Your task to perform on an android device: clear all cookies in the chrome app Image 0: 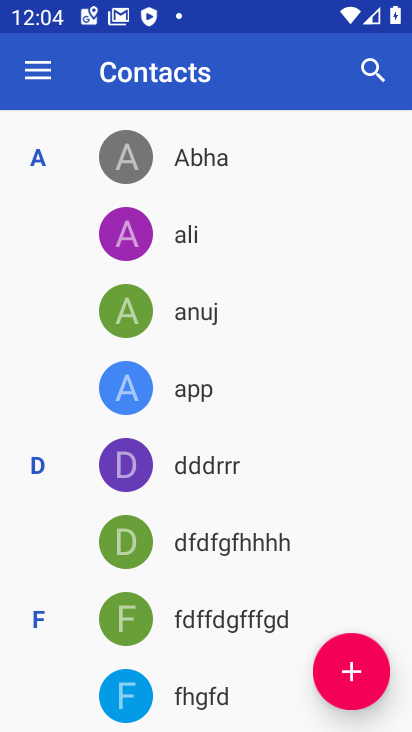
Step 0: drag from (220, 645) to (208, 264)
Your task to perform on an android device: clear all cookies in the chrome app Image 1: 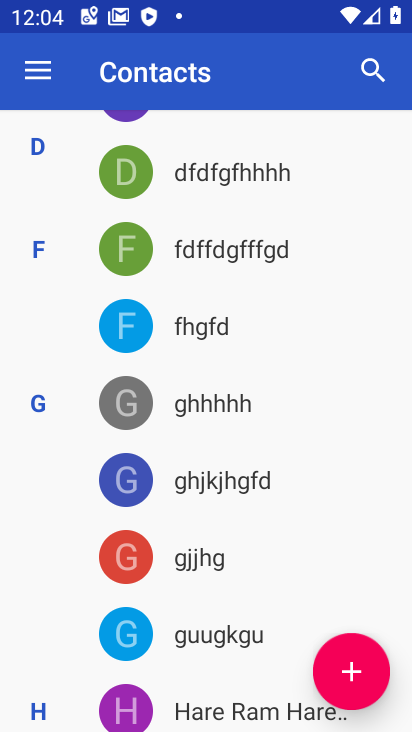
Step 1: press home button
Your task to perform on an android device: clear all cookies in the chrome app Image 2: 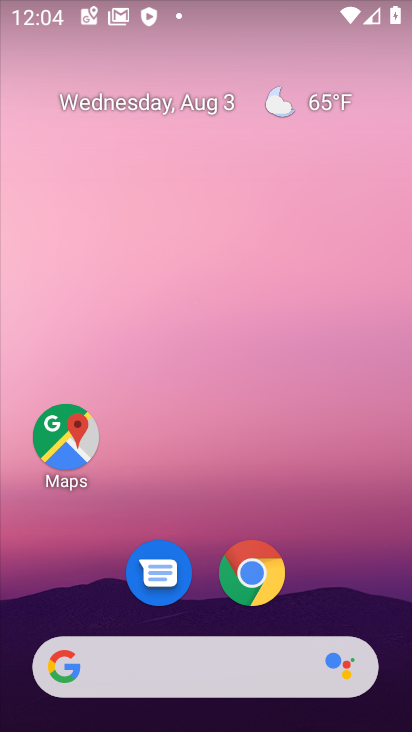
Step 2: drag from (195, 601) to (266, 118)
Your task to perform on an android device: clear all cookies in the chrome app Image 3: 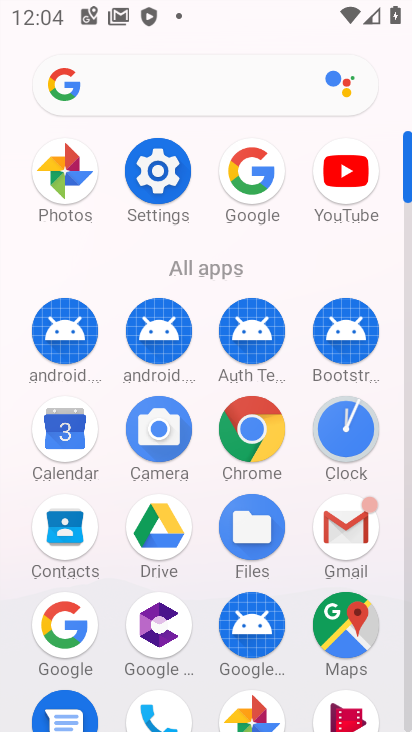
Step 3: click (250, 434)
Your task to perform on an android device: clear all cookies in the chrome app Image 4: 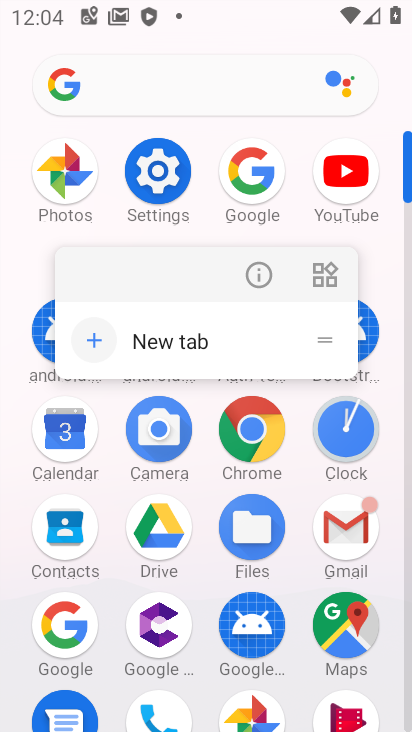
Step 4: click (258, 267)
Your task to perform on an android device: clear all cookies in the chrome app Image 5: 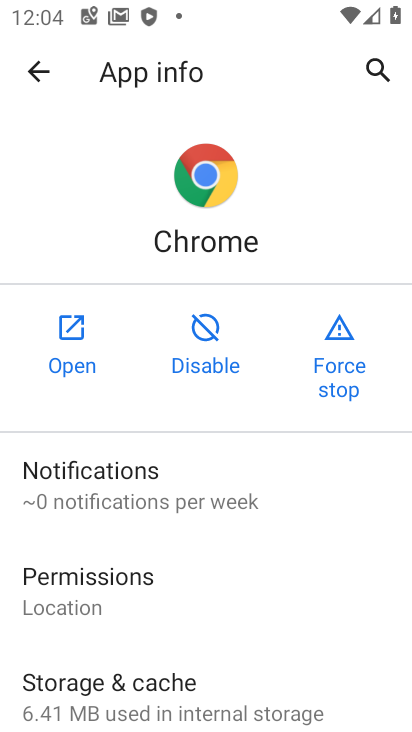
Step 5: click (83, 337)
Your task to perform on an android device: clear all cookies in the chrome app Image 6: 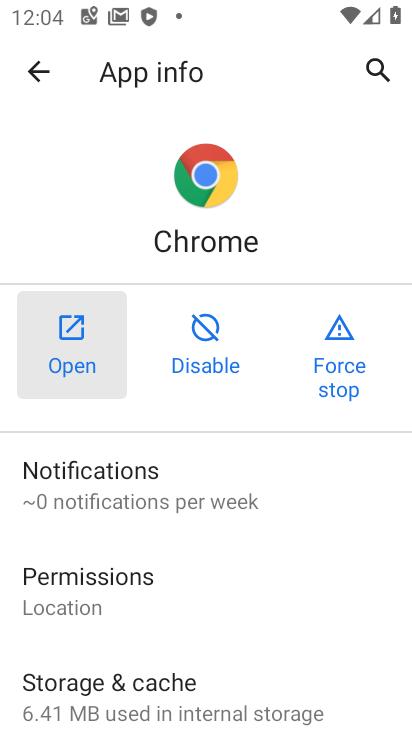
Step 6: click (91, 340)
Your task to perform on an android device: clear all cookies in the chrome app Image 7: 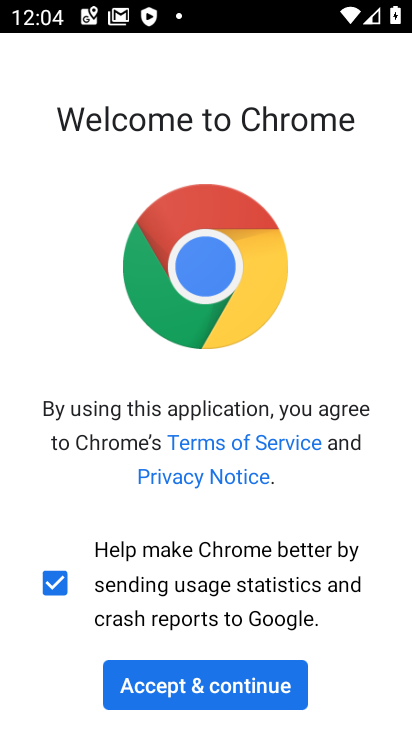
Step 7: drag from (224, 622) to (215, 222)
Your task to perform on an android device: clear all cookies in the chrome app Image 8: 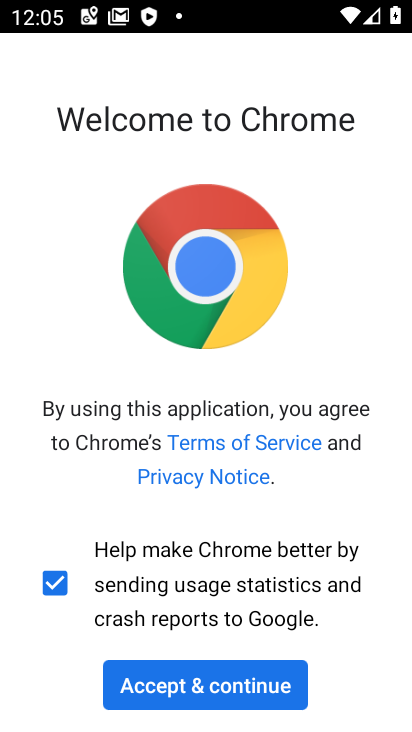
Step 8: click (206, 685)
Your task to perform on an android device: clear all cookies in the chrome app Image 9: 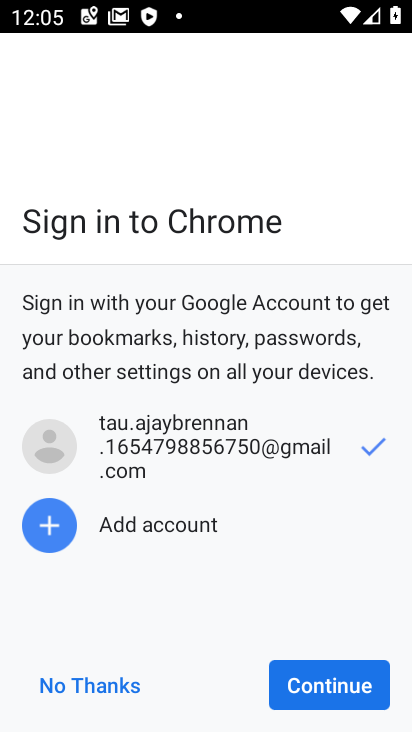
Step 9: click (339, 699)
Your task to perform on an android device: clear all cookies in the chrome app Image 10: 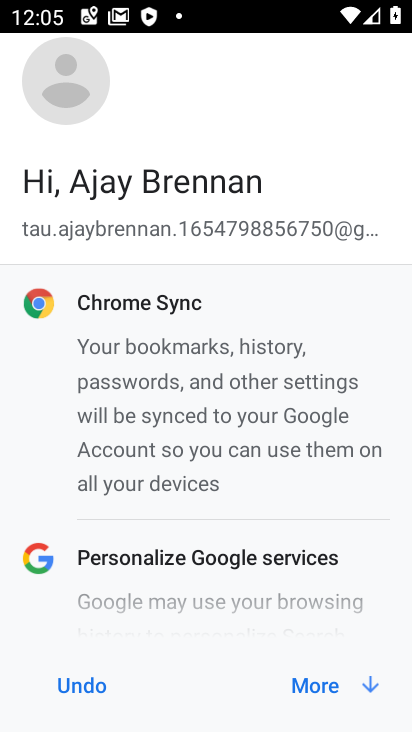
Step 10: click (338, 677)
Your task to perform on an android device: clear all cookies in the chrome app Image 11: 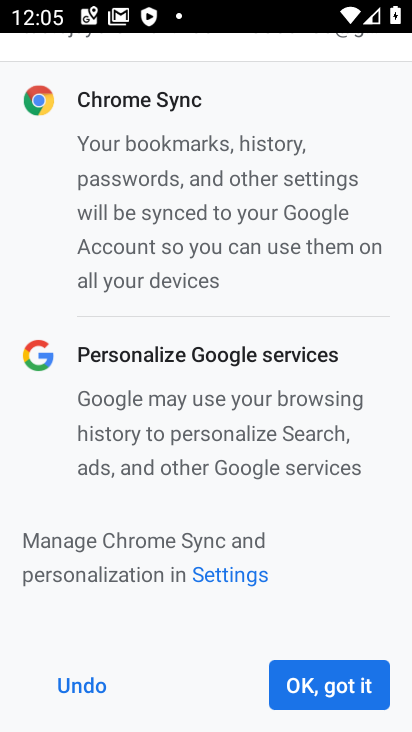
Step 11: click (316, 669)
Your task to perform on an android device: clear all cookies in the chrome app Image 12: 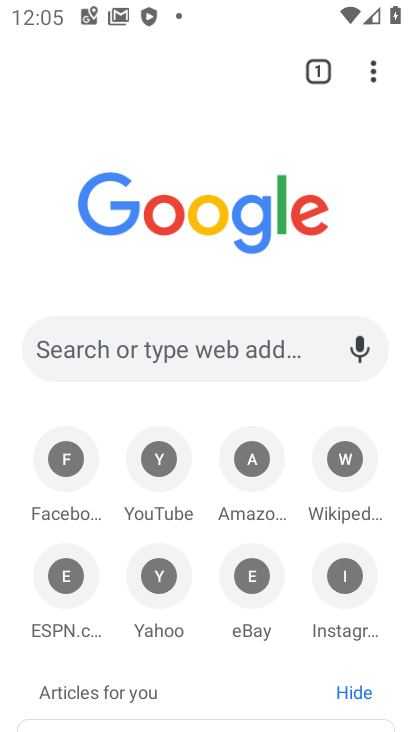
Step 12: click (376, 75)
Your task to perform on an android device: clear all cookies in the chrome app Image 13: 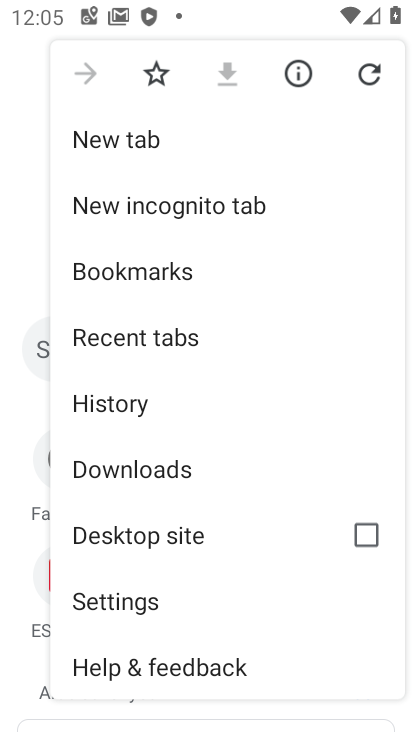
Step 13: click (110, 396)
Your task to perform on an android device: clear all cookies in the chrome app Image 14: 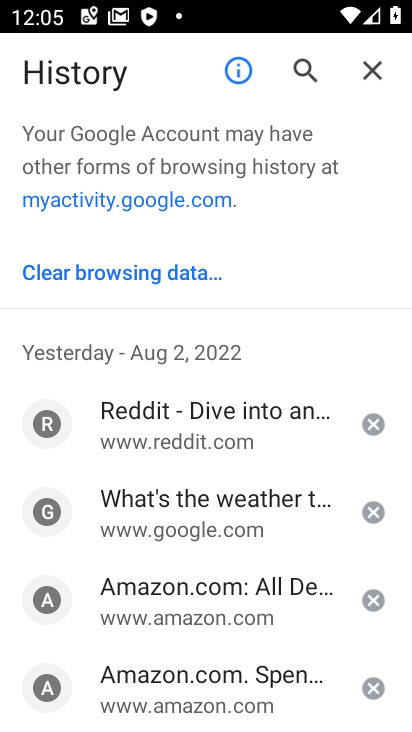
Step 14: click (97, 276)
Your task to perform on an android device: clear all cookies in the chrome app Image 15: 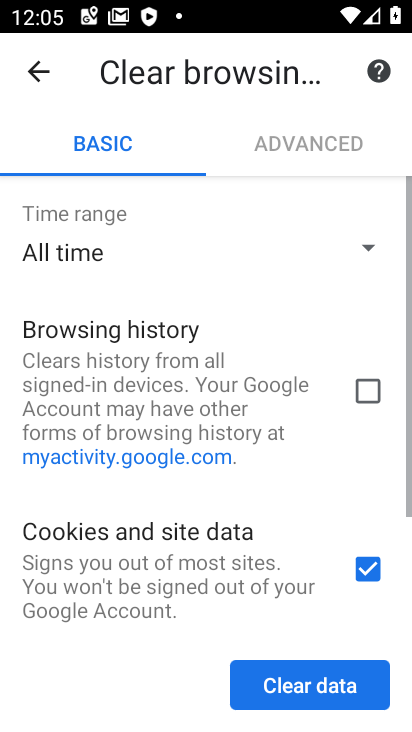
Step 15: drag from (221, 579) to (330, 139)
Your task to perform on an android device: clear all cookies in the chrome app Image 16: 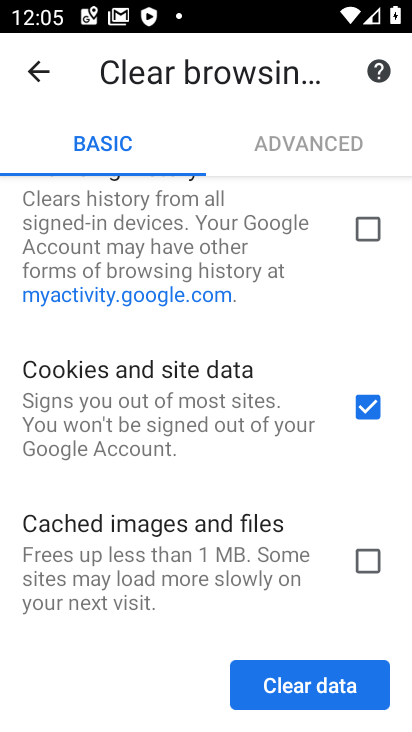
Step 16: click (291, 685)
Your task to perform on an android device: clear all cookies in the chrome app Image 17: 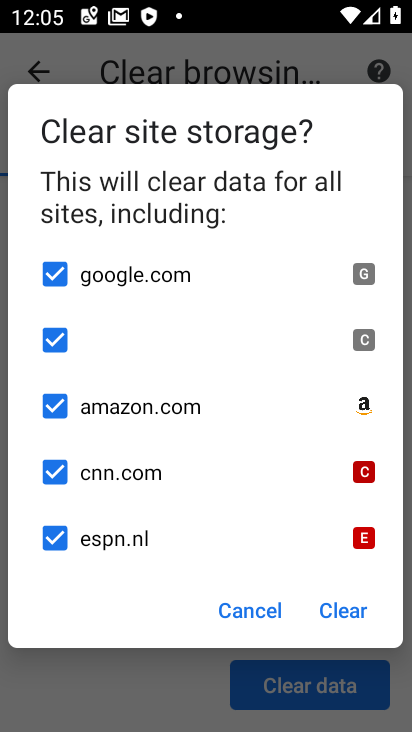
Step 17: click (341, 618)
Your task to perform on an android device: clear all cookies in the chrome app Image 18: 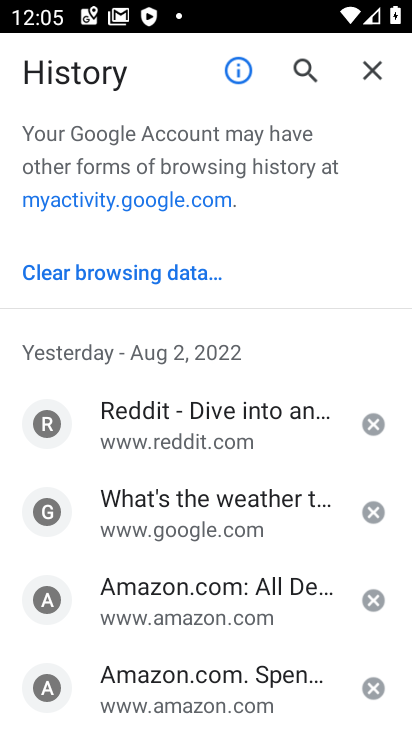
Step 18: task complete